Your task to perform on an android device: check out phone information Image 0: 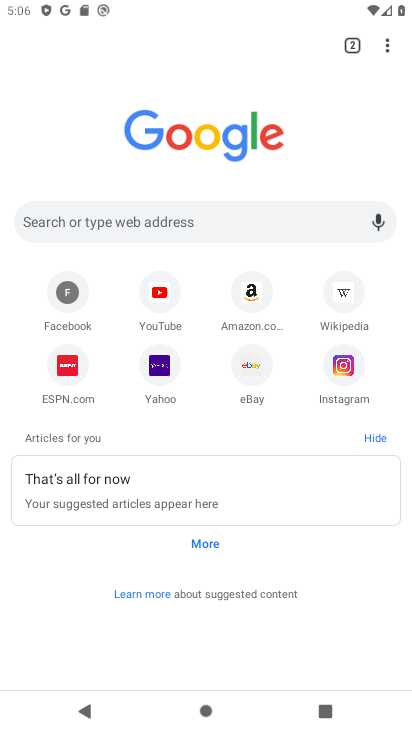
Step 0: press home button
Your task to perform on an android device: check out phone information Image 1: 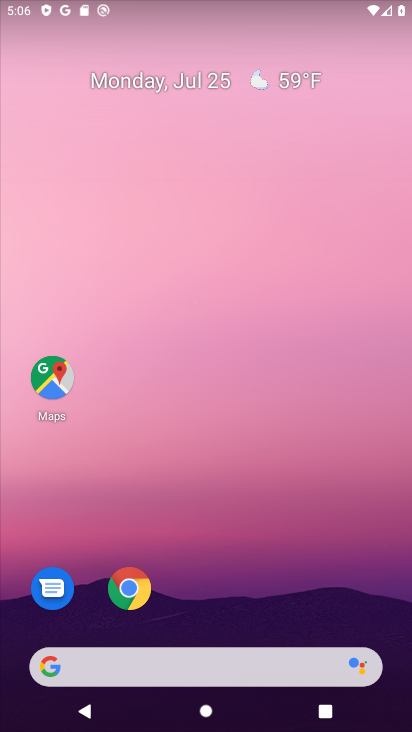
Step 1: drag from (232, 570) to (242, 259)
Your task to perform on an android device: check out phone information Image 2: 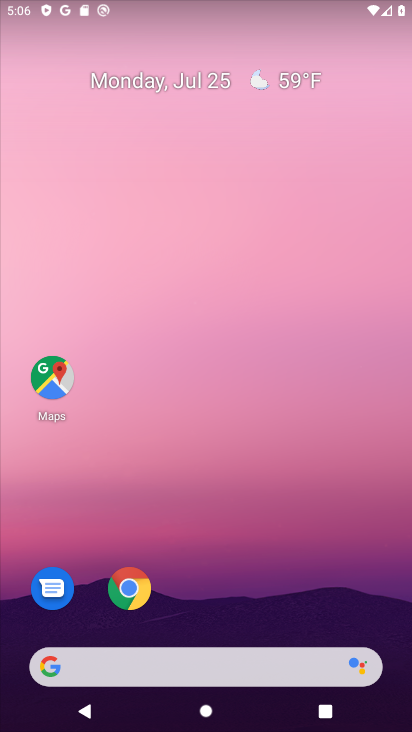
Step 2: drag from (247, 520) to (251, 95)
Your task to perform on an android device: check out phone information Image 3: 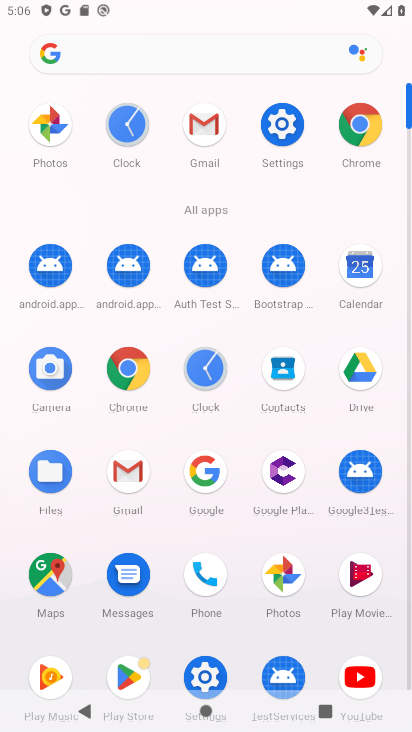
Step 3: click (287, 131)
Your task to perform on an android device: check out phone information Image 4: 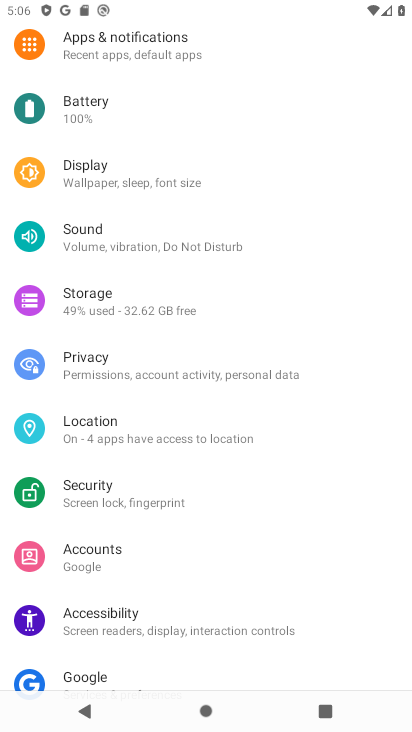
Step 4: drag from (191, 528) to (154, 331)
Your task to perform on an android device: check out phone information Image 5: 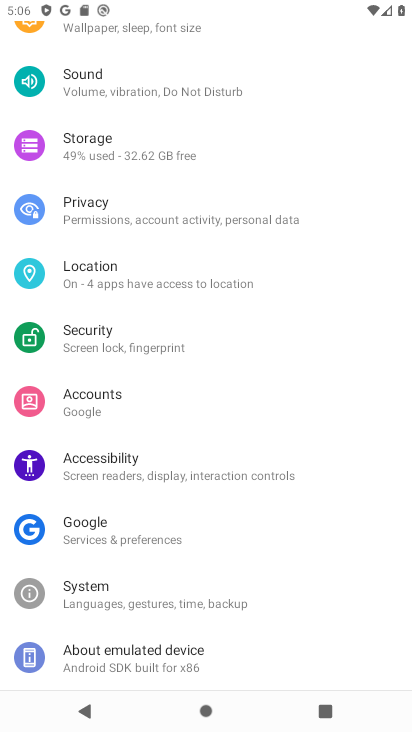
Step 5: click (126, 650)
Your task to perform on an android device: check out phone information Image 6: 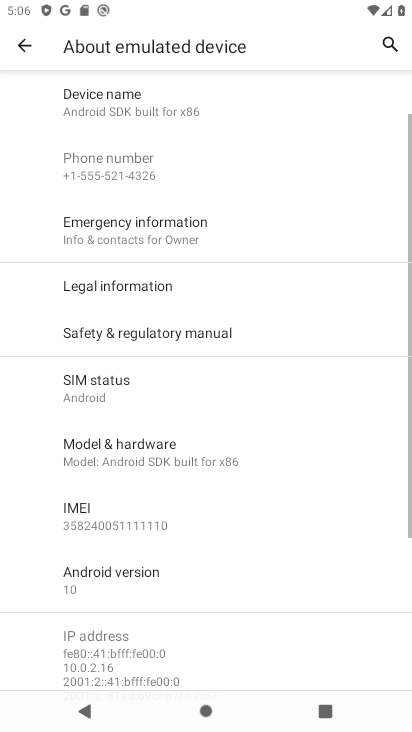
Step 6: task complete